Your task to perform on an android device: check the backup settings in the google photos Image 0: 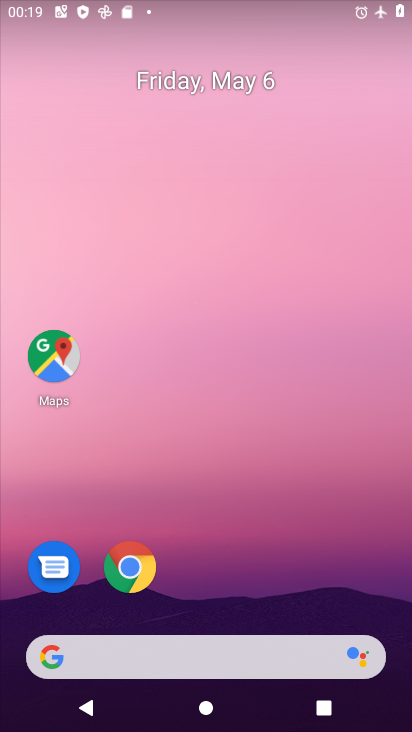
Step 0: drag from (197, 600) to (204, 176)
Your task to perform on an android device: check the backup settings in the google photos Image 1: 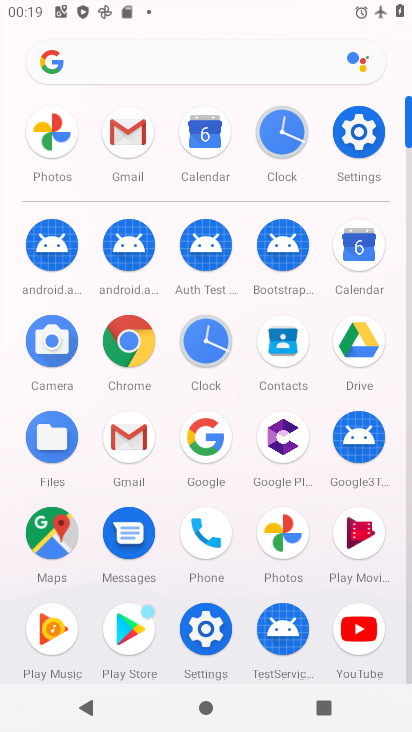
Step 1: click (58, 151)
Your task to perform on an android device: check the backup settings in the google photos Image 2: 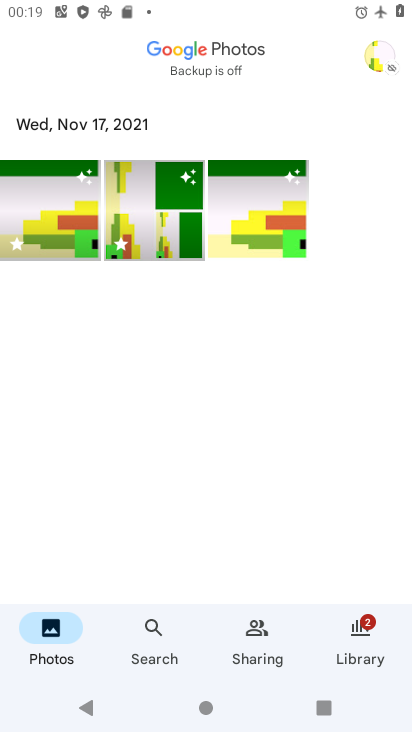
Step 2: click (379, 63)
Your task to perform on an android device: check the backup settings in the google photos Image 3: 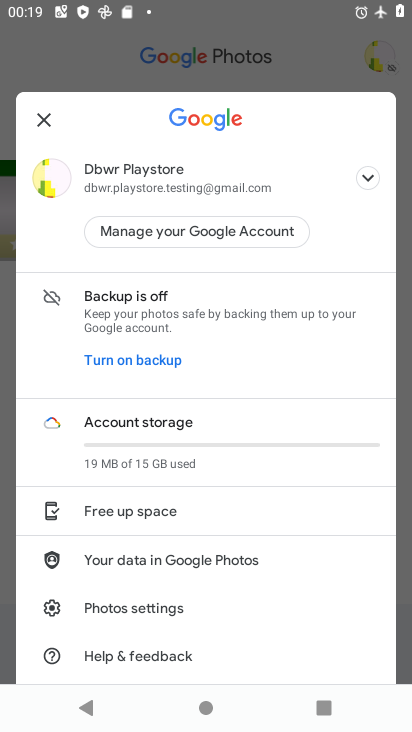
Step 3: drag from (210, 592) to (220, 304)
Your task to perform on an android device: check the backup settings in the google photos Image 4: 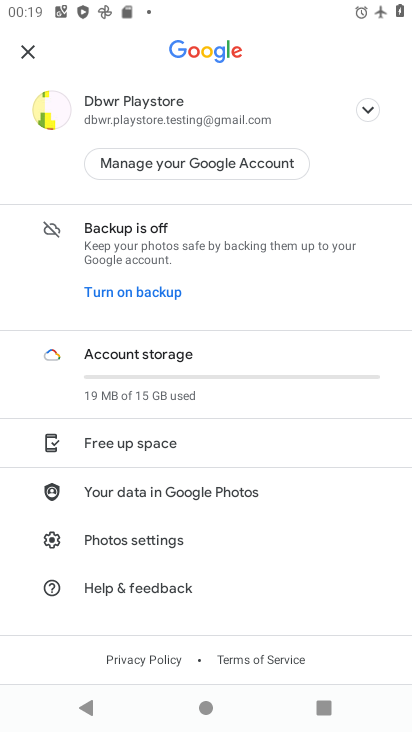
Step 4: click (184, 264)
Your task to perform on an android device: check the backup settings in the google photos Image 5: 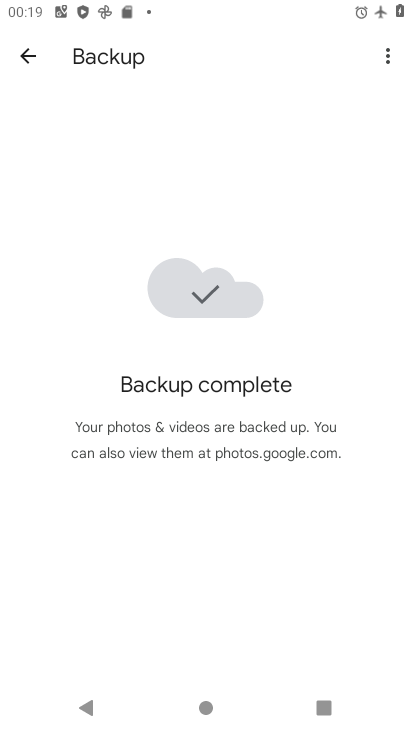
Step 5: click (33, 51)
Your task to perform on an android device: check the backup settings in the google photos Image 6: 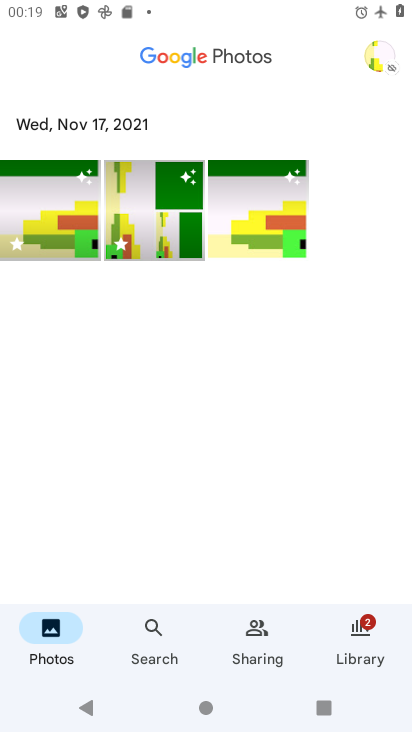
Step 6: click (371, 63)
Your task to perform on an android device: check the backup settings in the google photos Image 7: 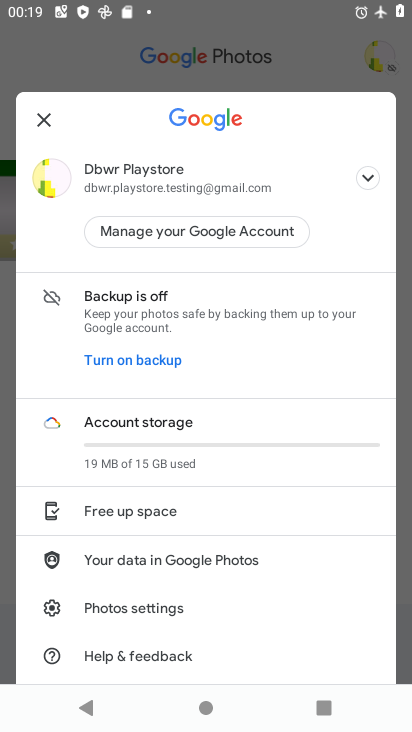
Step 7: click (48, 119)
Your task to perform on an android device: check the backup settings in the google photos Image 8: 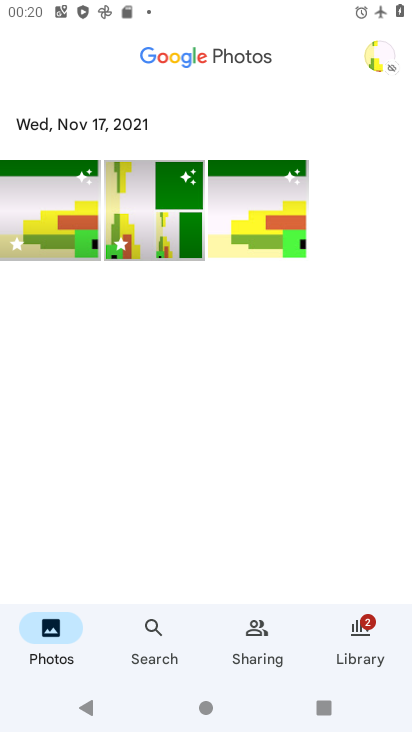
Step 8: click (392, 55)
Your task to perform on an android device: check the backup settings in the google photos Image 9: 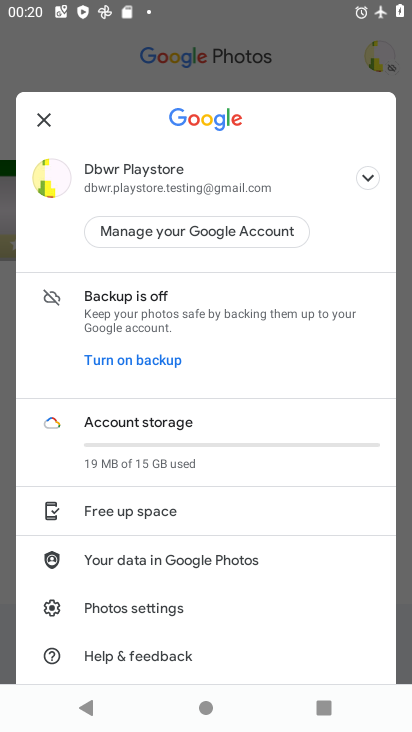
Step 9: click (170, 183)
Your task to perform on an android device: check the backup settings in the google photos Image 10: 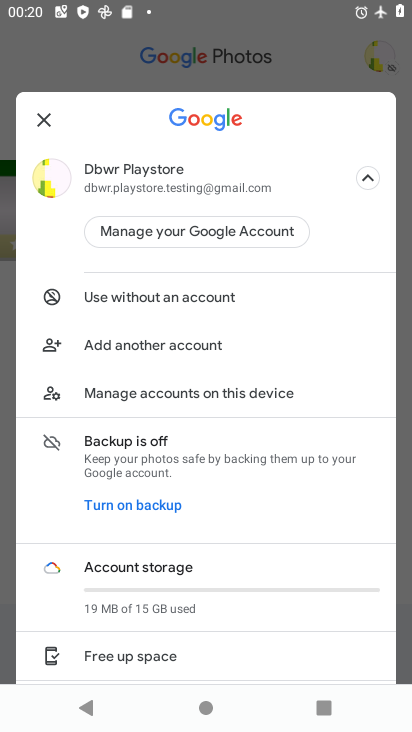
Step 10: drag from (216, 577) to (265, 260)
Your task to perform on an android device: check the backup settings in the google photos Image 11: 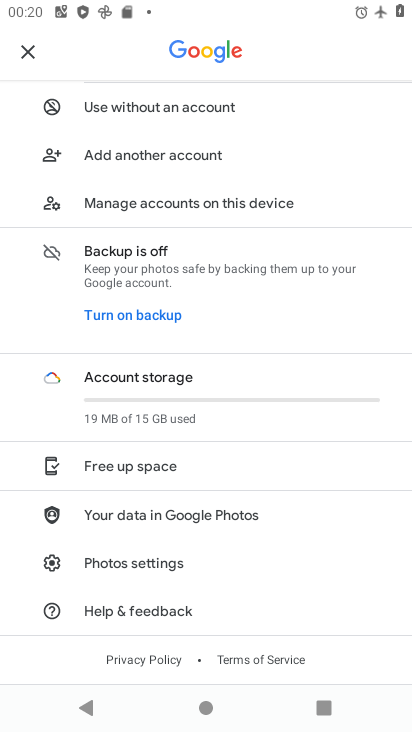
Step 11: click (139, 569)
Your task to perform on an android device: check the backup settings in the google photos Image 12: 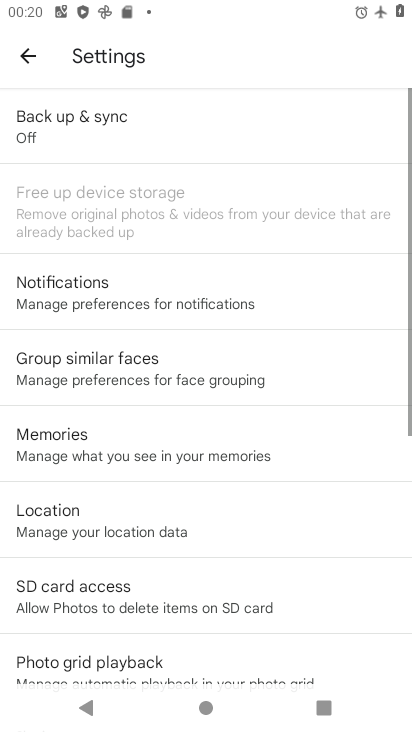
Step 12: click (148, 127)
Your task to perform on an android device: check the backup settings in the google photos Image 13: 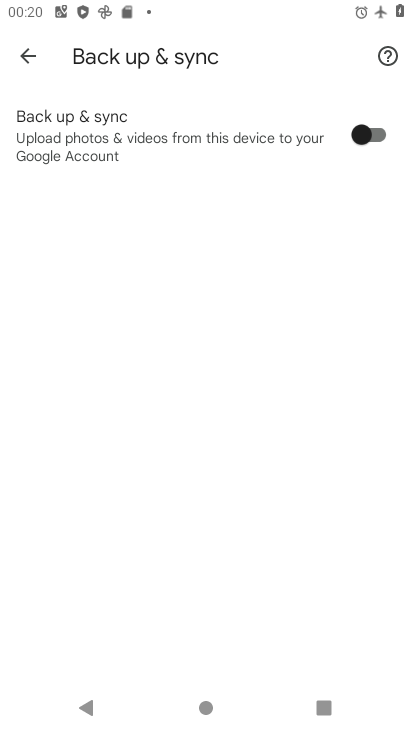
Step 13: task complete